Your task to perform on an android device: change timer sound Image 0: 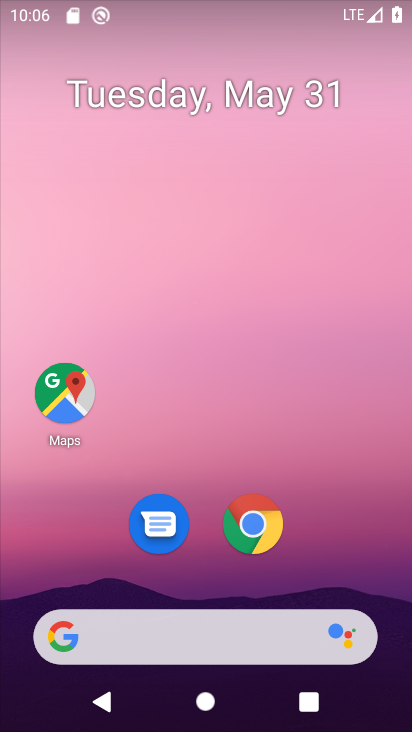
Step 0: drag from (207, 460) to (224, 18)
Your task to perform on an android device: change timer sound Image 1: 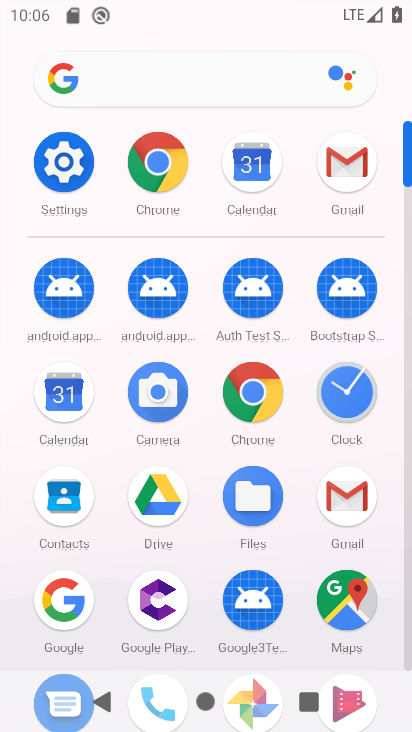
Step 1: click (356, 394)
Your task to perform on an android device: change timer sound Image 2: 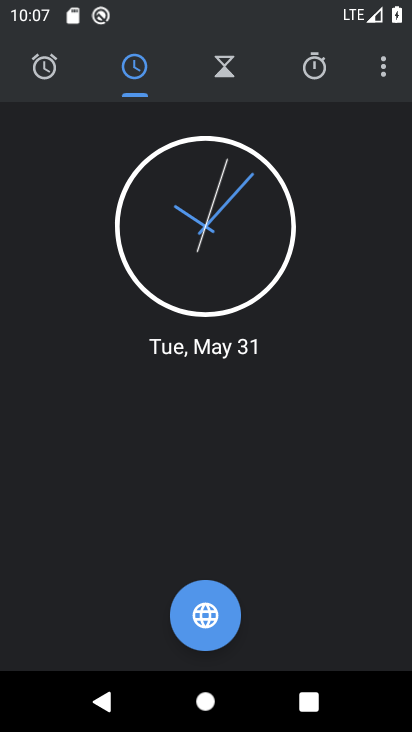
Step 2: click (385, 71)
Your task to perform on an android device: change timer sound Image 3: 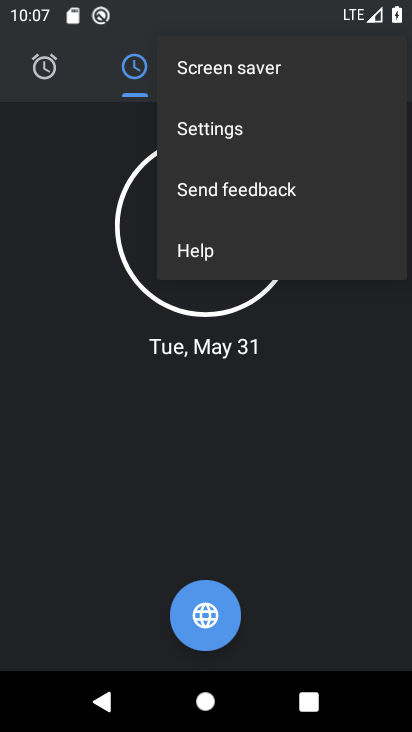
Step 3: click (283, 127)
Your task to perform on an android device: change timer sound Image 4: 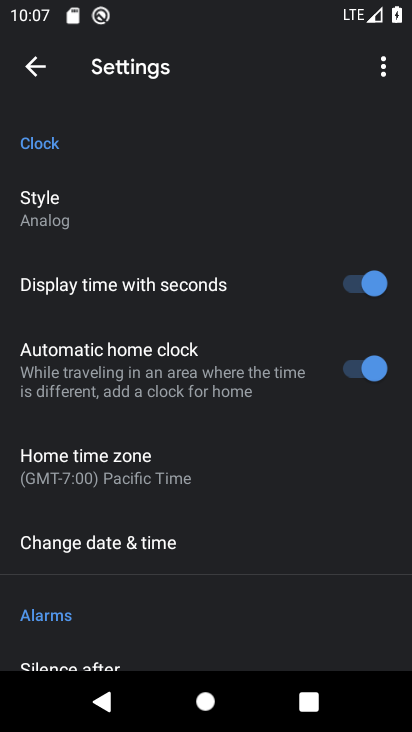
Step 4: drag from (254, 498) to (232, 29)
Your task to perform on an android device: change timer sound Image 5: 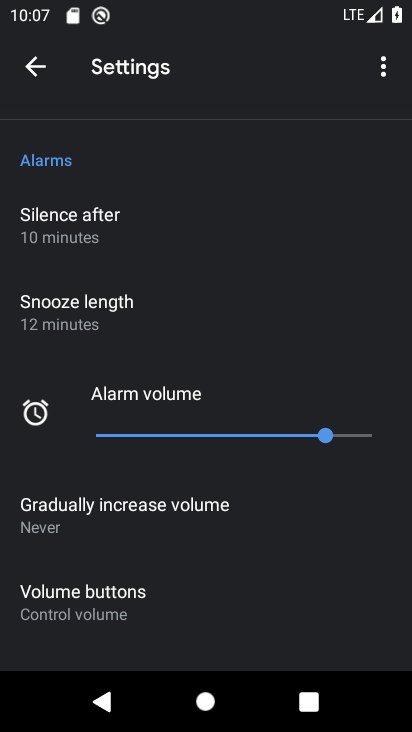
Step 5: drag from (241, 358) to (264, 3)
Your task to perform on an android device: change timer sound Image 6: 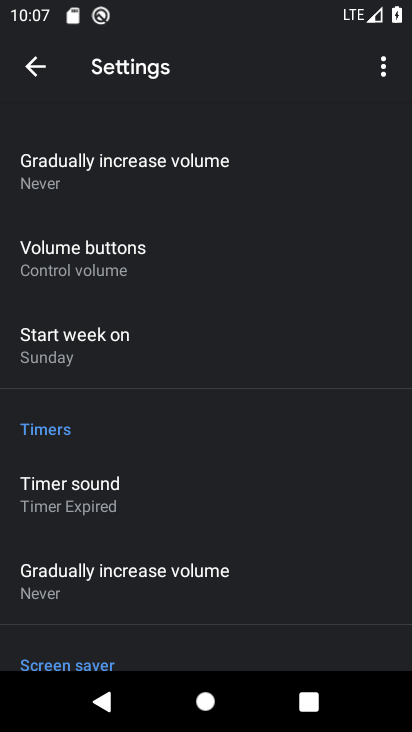
Step 6: click (119, 490)
Your task to perform on an android device: change timer sound Image 7: 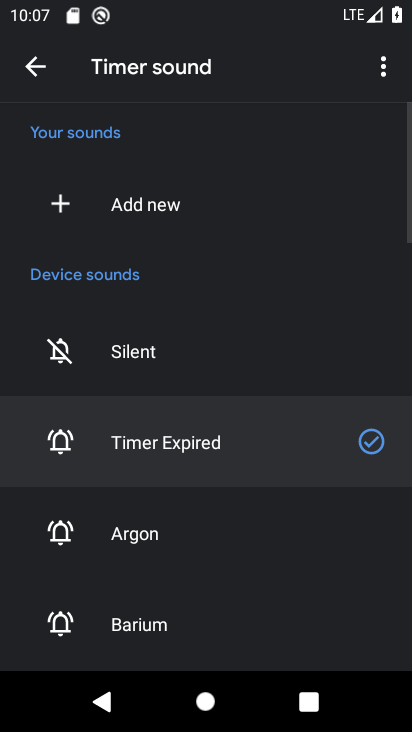
Step 7: click (149, 526)
Your task to perform on an android device: change timer sound Image 8: 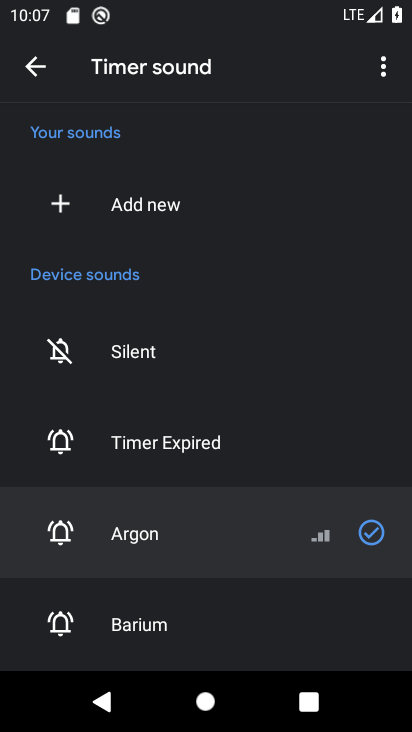
Step 8: task complete